Your task to perform on an android device: Go to Maps Image 0: 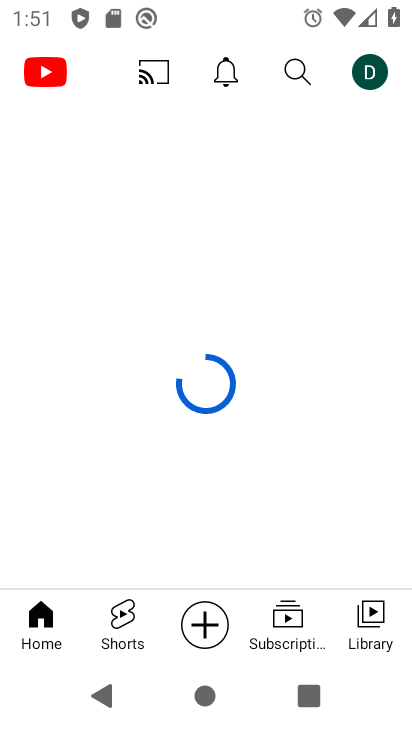
Step 0: press home button
Your task to perform on an android device: Go to Maps Image 1: 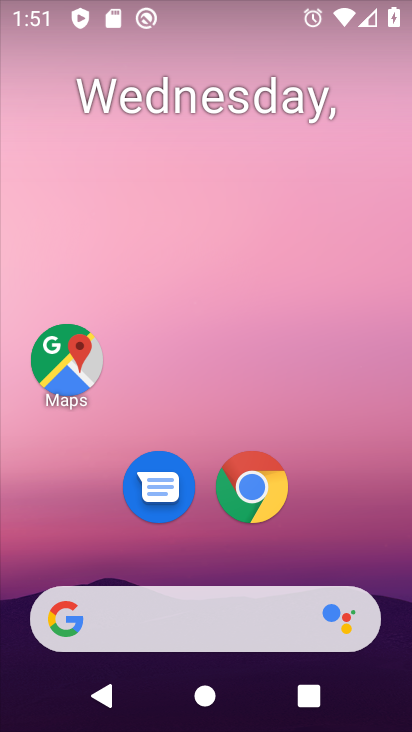
Step 1: drag from (395, 625) to (272, 96)
Your task to perform on an android device: Go to Maps Image 2: 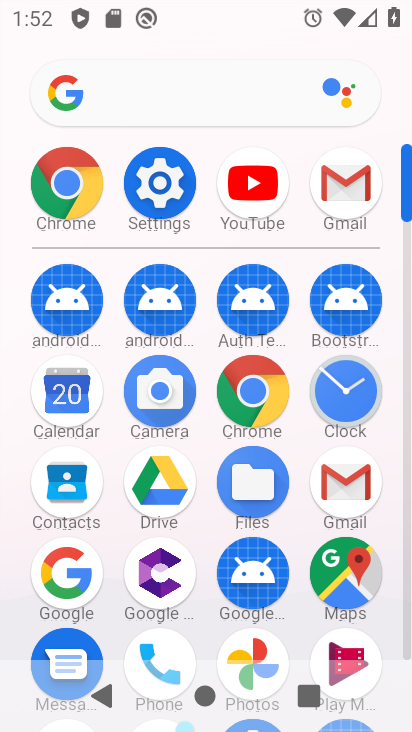
Step 2: click (359, 574)
Your task to perform on an android device: Go to Maps Image 3: 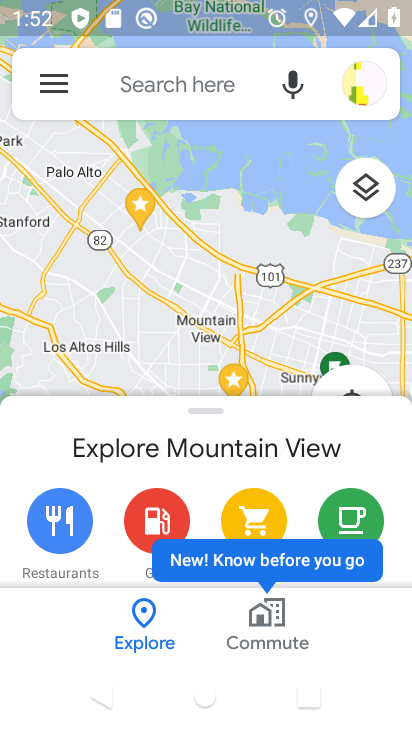
Step 3: task complete